Your task to perform on an android device: change your default location settings in chrome Image 0: 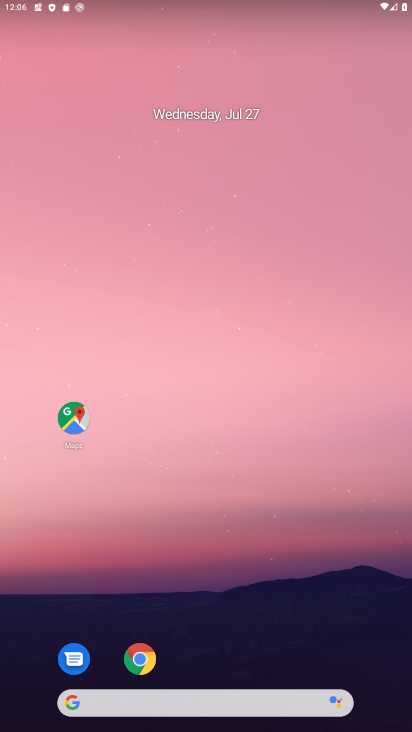
Step 0: press home button
Your task to perform on an android device: change your default location settings in chrome Image 1: 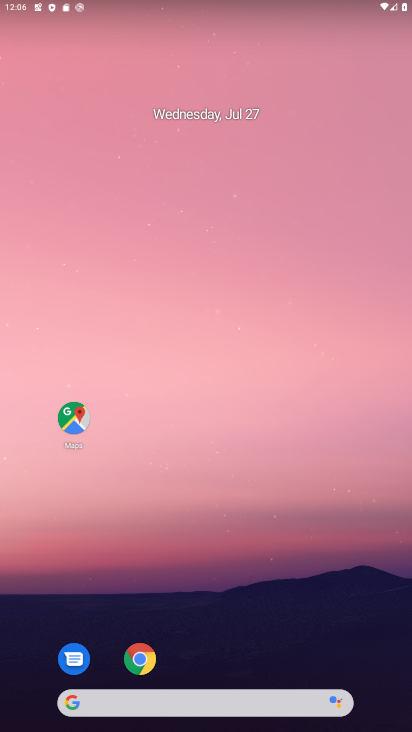
Step 1: click (135, 654)
Your task to perform on an android device: change your default location settings in chrome Image 2: 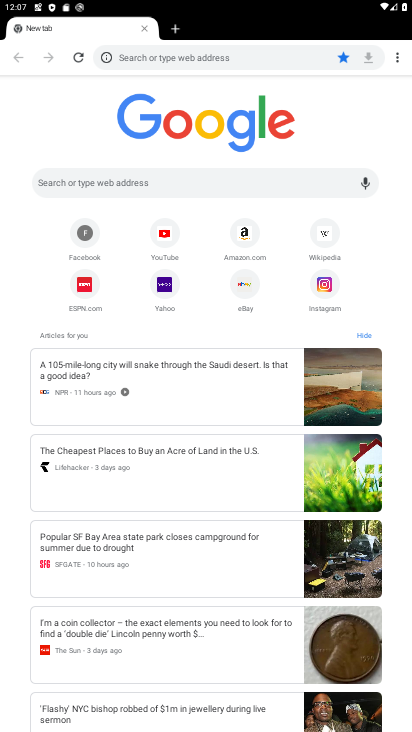
Step 2: click (398, 53)
Your task to perform on an android device: change your default location settings in chrome Image 3: 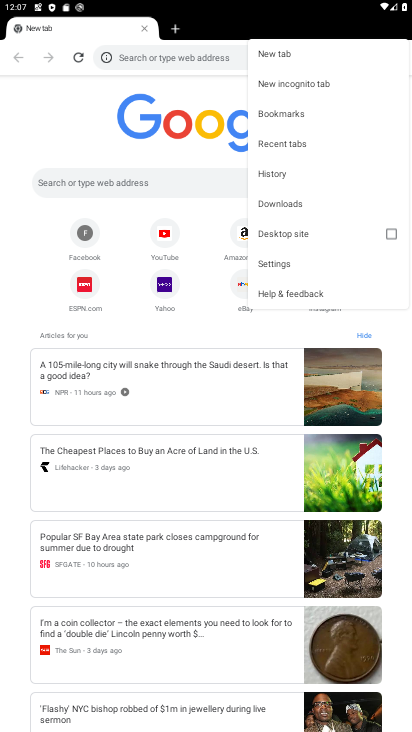
Step 3: click (288, 257)
Your task to perform on an android device: change your default location settings in chrome Image 4: 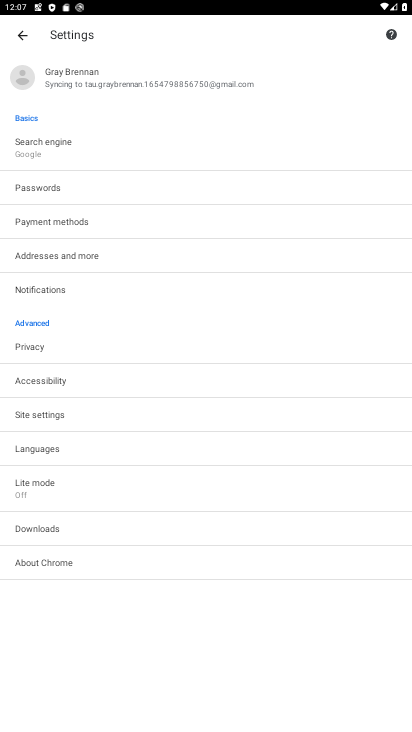
Step 4: click (69, 419)
Your task to perform on an android device: change your default location settings in chrome Image 5: 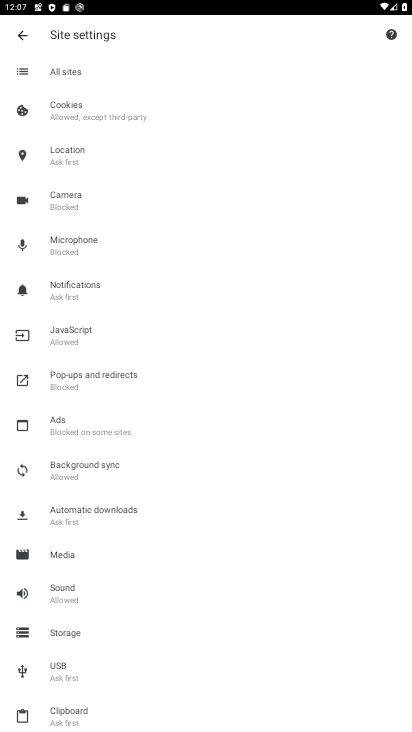
Step 5: click (95, 149)
Your task to perform on an android device: change your default location settings in chrome Image 6: 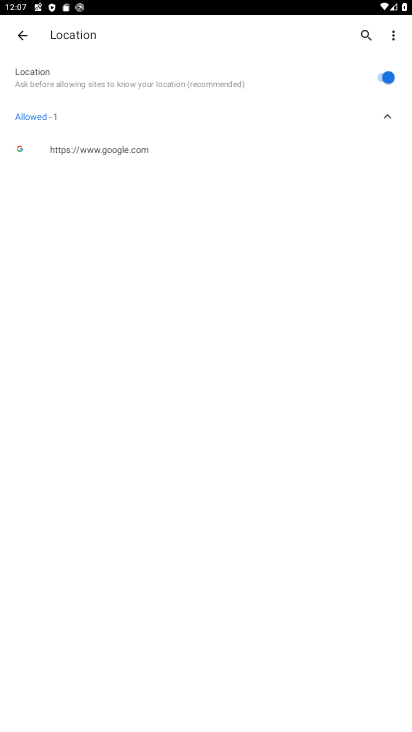
Step 6: click (385, 73)
Your task to perform on an android device: change your default location settings in chrome Image 7: 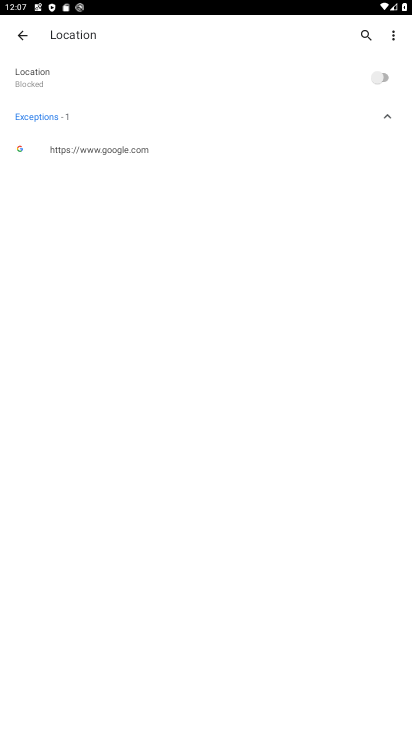
Step 7: task complete